Your task to perform on an android device: Open network settings Image 0: 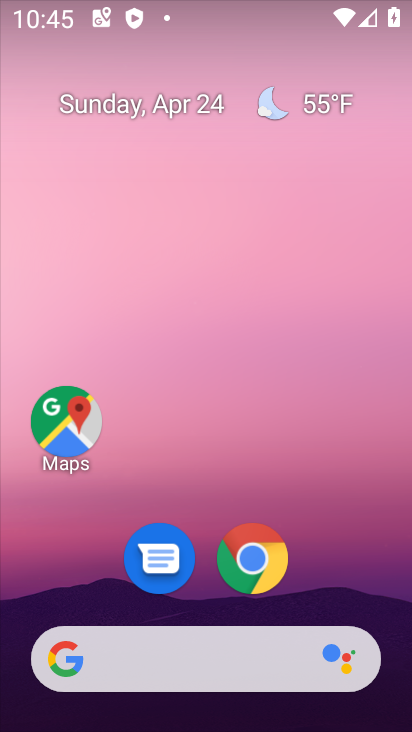
Step 0: drag from (262, 709) to (403, 292)
Your task to perform on an android device: Open network settings Image 1: 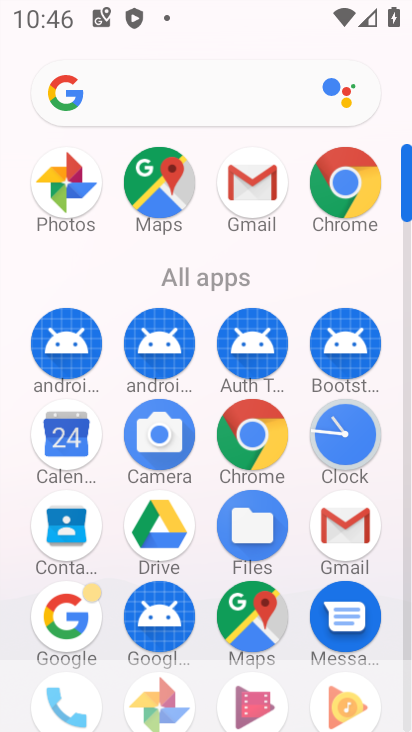
Step 1: click (396, 622)
Your task to perform on an android device: Open network settings Image 2: 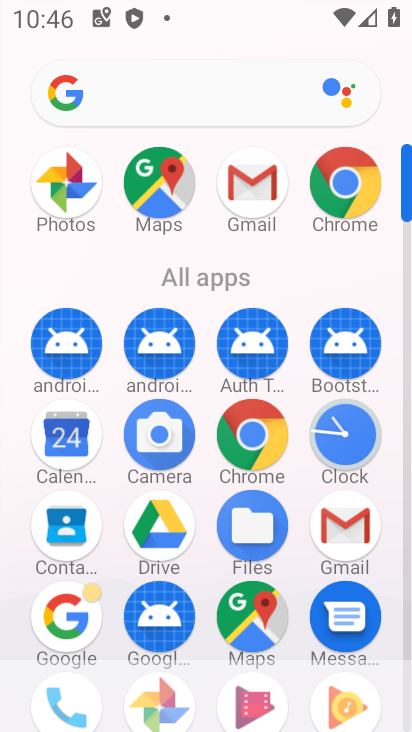
Step 2: click (389, 613)
Your task to perform on an android device: Open network settings Image 3: 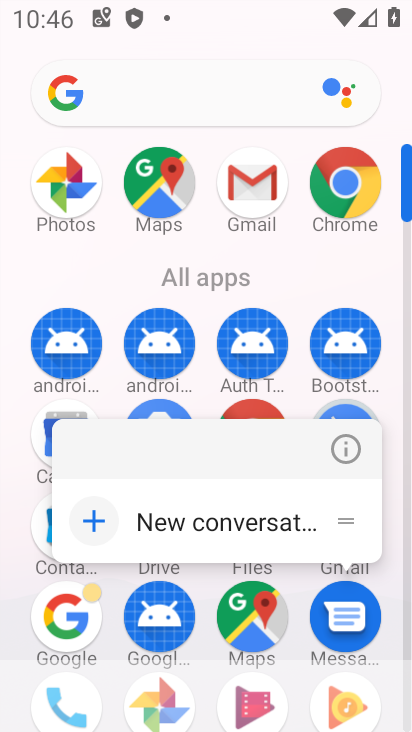
Step 3: click (394, 574)
Your task to perform on an android device: Open network settings Image 4: 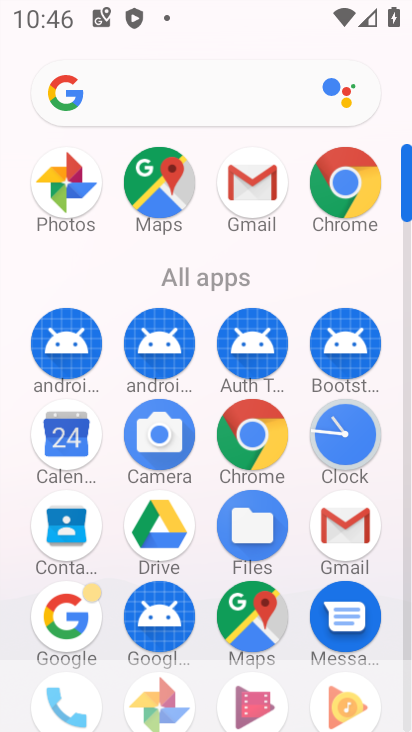
Step 4: drag from (394, 533) to (392, 232)
Your task to perform on an android device: Open network settings Image 5: 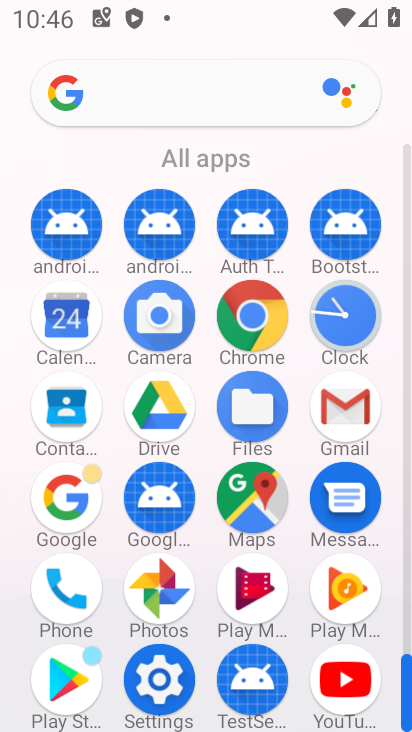
Step 5: click (152, 691)
Your task to perform on an android device: Open network settings Image 6: 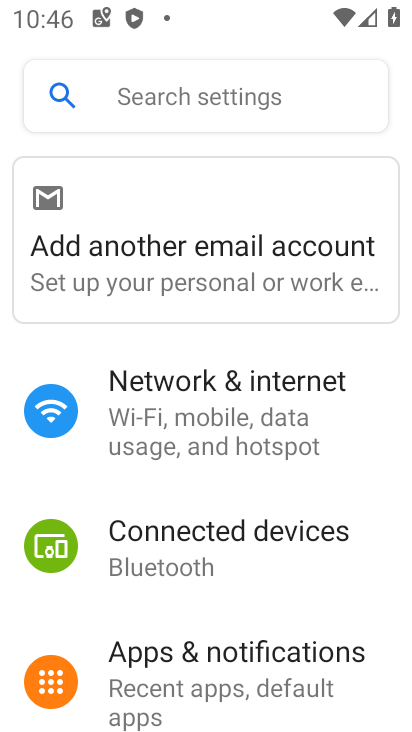
Step 6: click (162, 431)
Your task to perform on an android device: Open network settings Image 7: 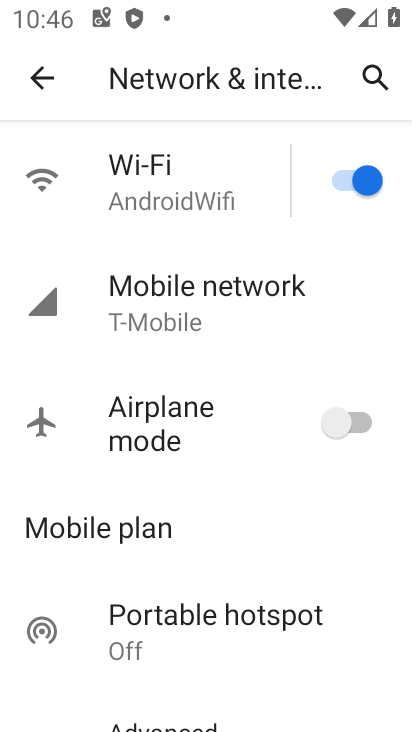
Step 7: task complete